Your task to perform on an android device: Open Amazon Image 0: 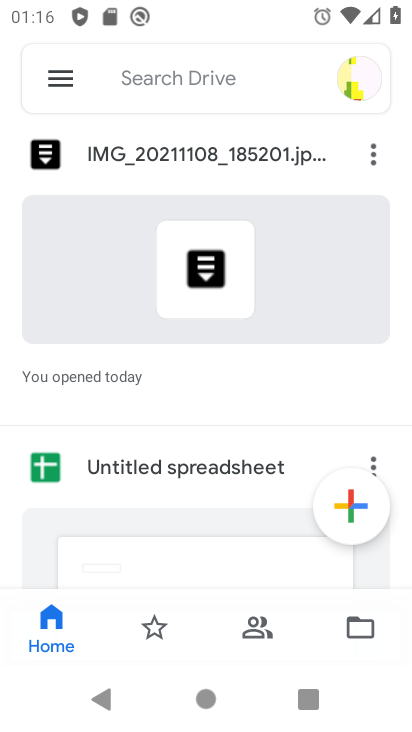
Step 0: press home button
Your task to perform on an android device: Open Amazon Image 1: 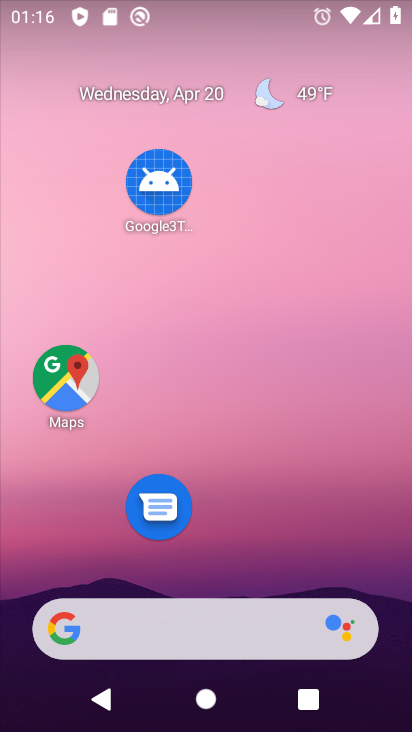
Step 1: drag from (204, 527) to (249, 1)
Your task to perform on an android device: Open Amazon Image 2: 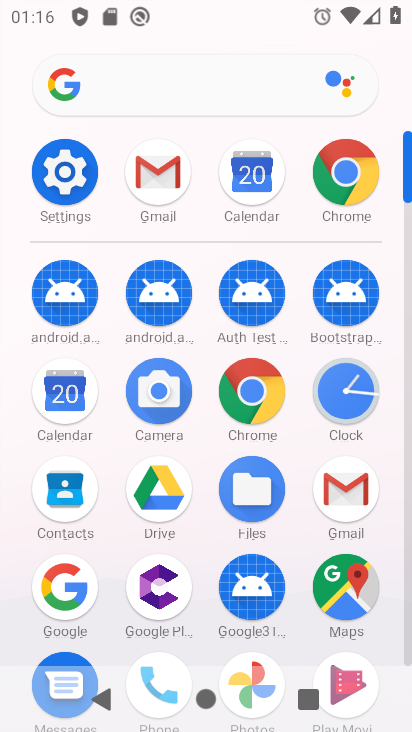
Step 2: click (347, 180)
Your task to perform on an android device: Open Amazon Image 3: 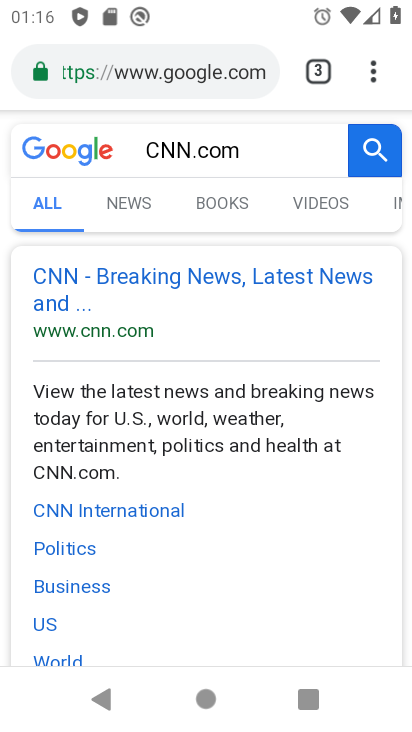
Step 3: click (368, 80)
Your task to perform on an android device: Open Amazon Image 4: 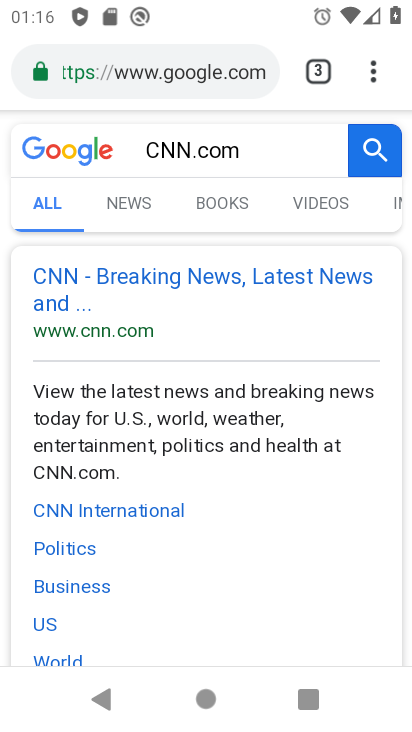
Step 4: click (370, 70)
Your task to perform on an android device: Open Amazon Image 5: 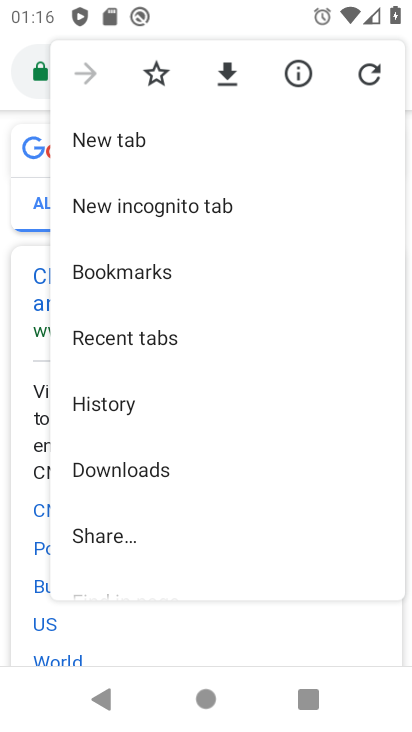
Step 5: click (131, 142)
Your task to perform on an android device: Open Amazon Image 6: 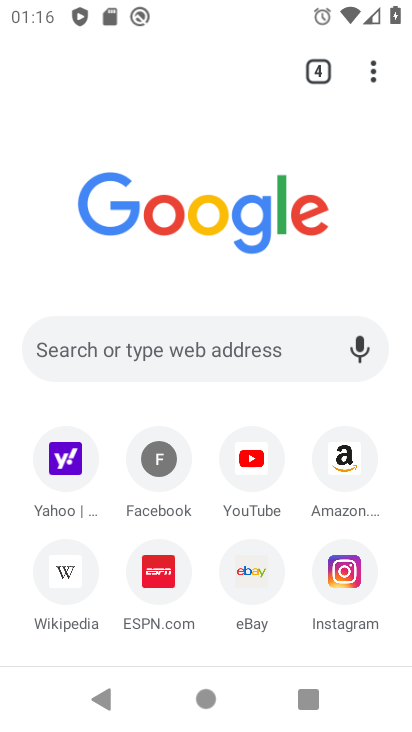
Step 6: click (334, 463)
Your task to perform on an android device: Open Amazon Image 7: 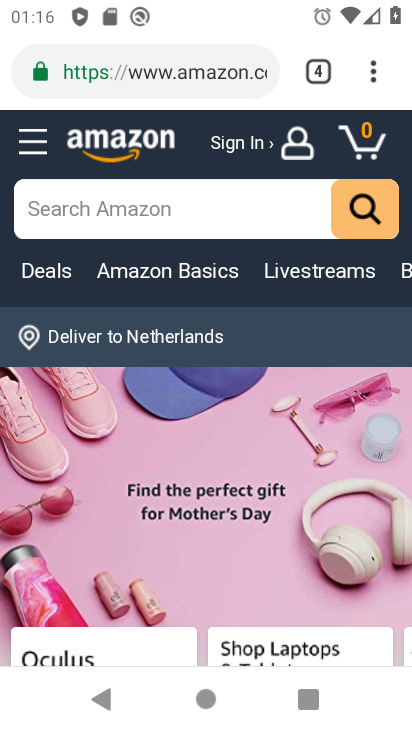
Step 7: task complete